Your task to perform on an android device: Search for vegetarian restaurants on Maps Image 0: 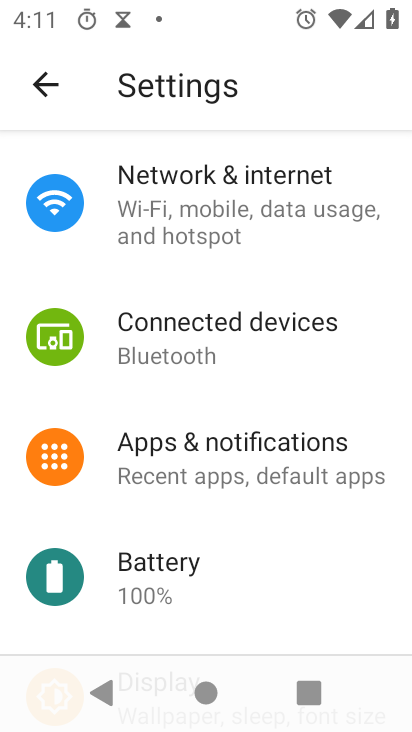
Step 0: press home button
Your task to perform on an android device: Search for vegetarian restaurants on Maps Image 1: 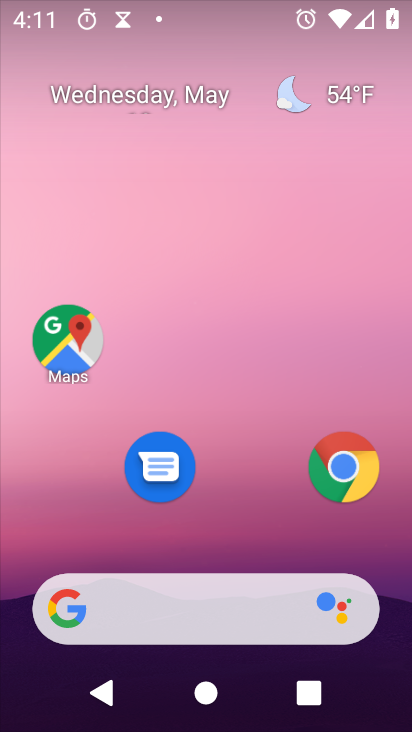
Step 1: click (74, 339)
Your task to perform on an android device: Search for vegetarian restaurants on Maps Image 2: 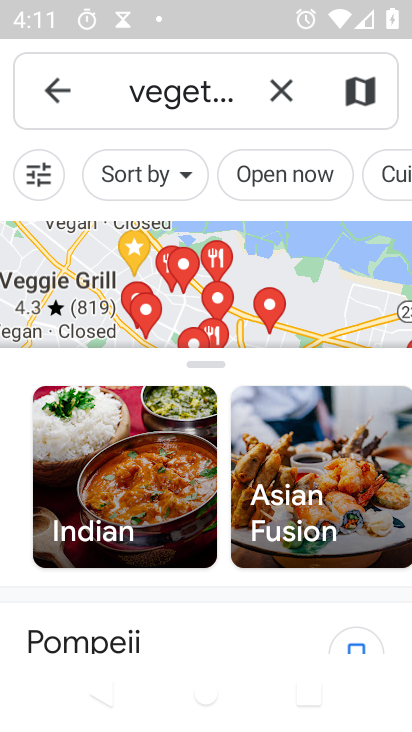
Step 2: task complete